Your task to perform on an android device: change notification settings in the gmail app Image 0: 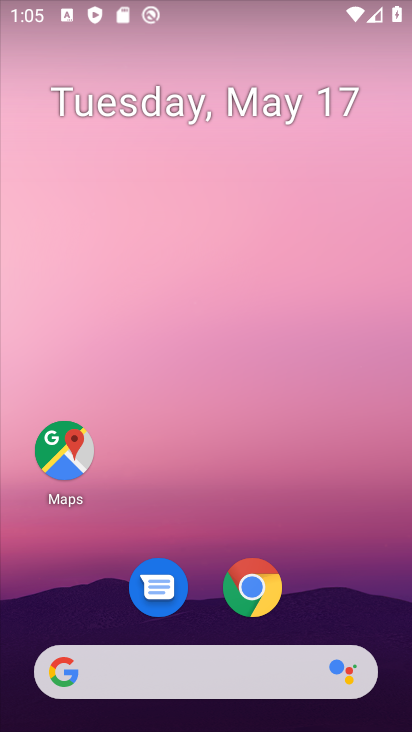
Step 0: drag from (185, 631) to (194, 96)
Your task to perform on an android device: change notification settings in the gmail app Image 1: 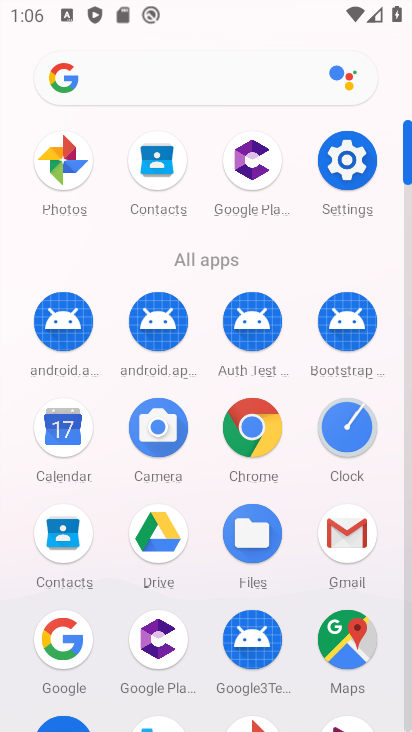
Step 1: click (358, 531)
Your task to perform on an android device: change notification settings in the gmail app Image 2: 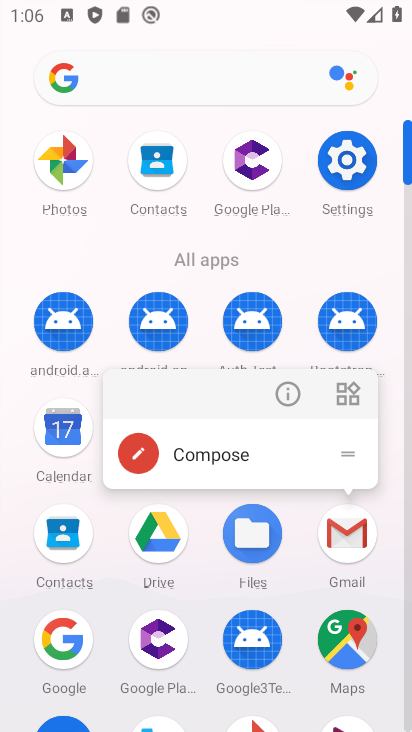
Step 2: click (290, 385)
Your task to perform on an android device: change notification settings in the gmail app Image 3: 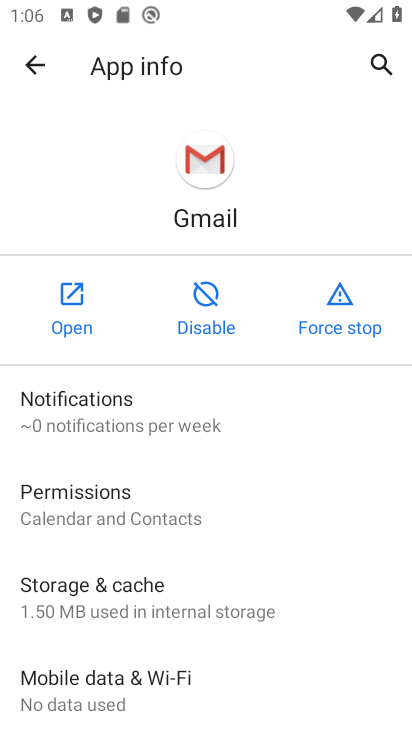
Step 3: click (57, 304)
Your task to perform on an android device: change notification settings in the gmail app Image 4: 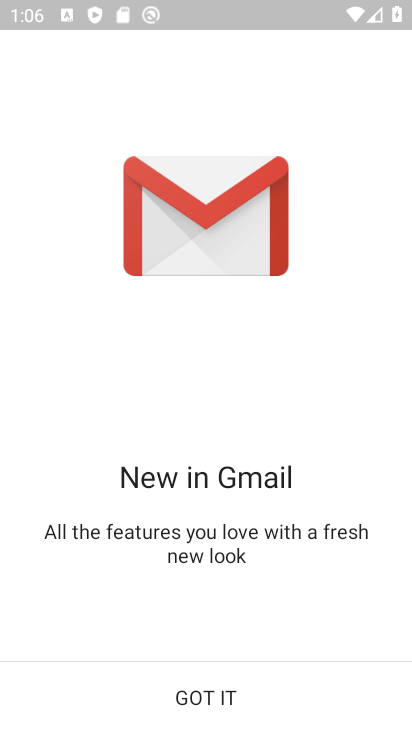
Step 4: click (205, 686)
Your task to perform on an android device: change notification settings in the gmail app Image 5: 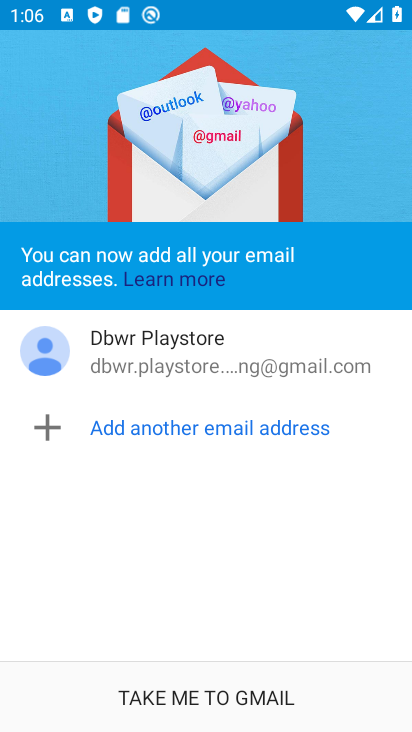
Step 5: click (192, 704)
Your task to perform on an android device: change notification settings in the gmail app Image 6: 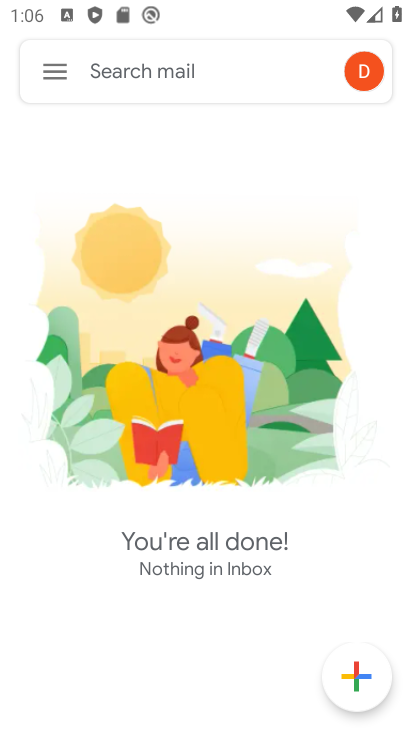
Step 6: click (63, 70)
Your task to perform on an android device: change notification settings in the gmail app Image 7: 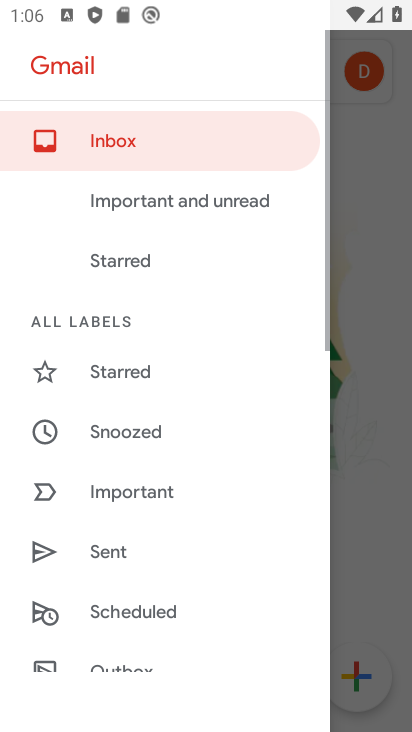
Step 7: drag from (229, 584) to (332, 100)
Your task to perform on an android device: change notification settings in the gmail app Image 8: 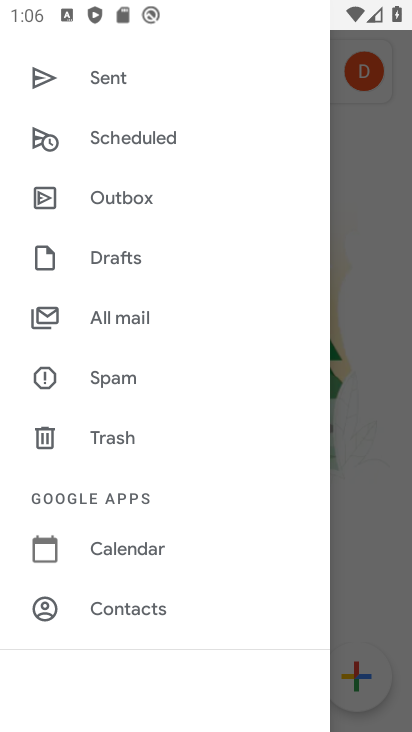
Step 8: drag from (163, 543) to (217, 167)
Your task to perform on an android device: change notification settings in the gmail app Image 9: 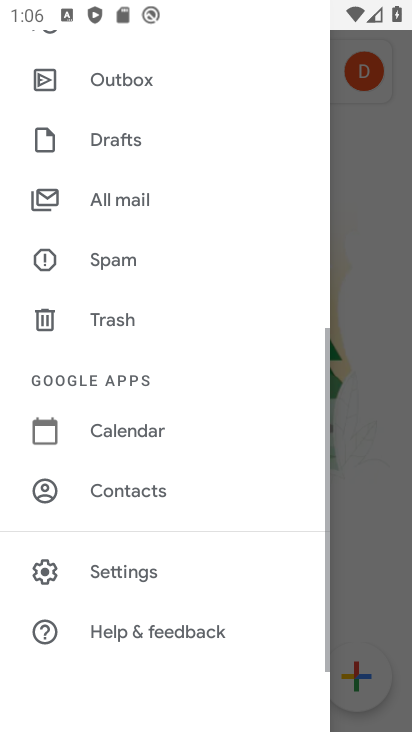
Step 9: click (124, 583)
Your task to perform on an android device: change notification settings in the gmail app Image 10: 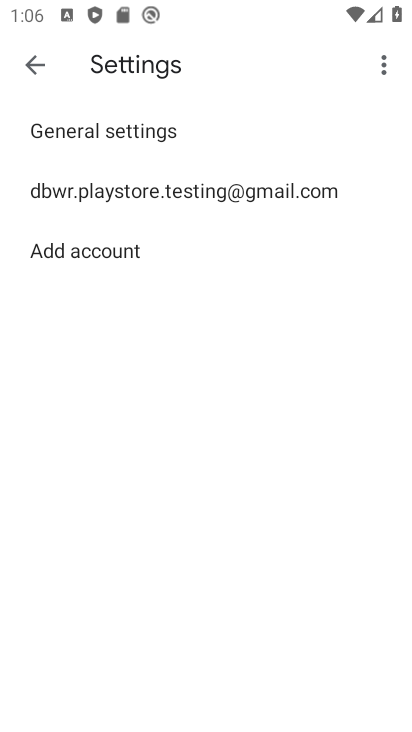
Step 10: click (228, 205)
Your task to perform on an android device: change notification settings in the gmail app Image 11: 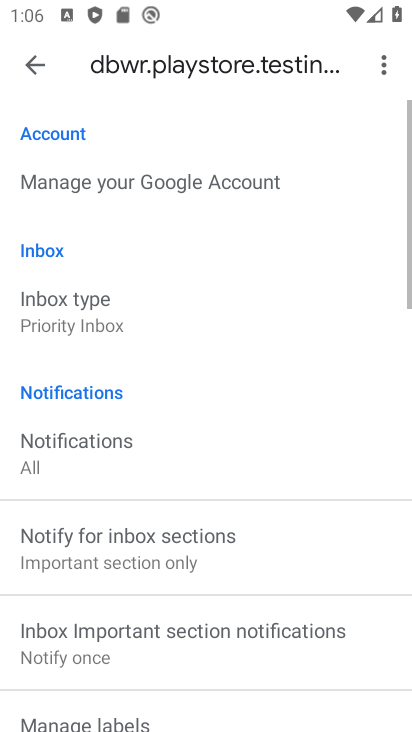
Step 11: drag from (140, 587) to (287, 173)
Your task to perform on an android device: change notification settings in the gmail app Image 12: 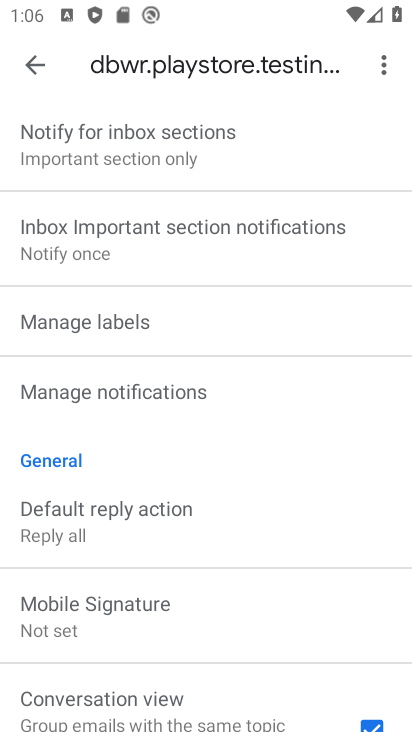
Step 12: click (164, 396)
Your task to perform on an android device: change notification settings in the gmail app Image 13: 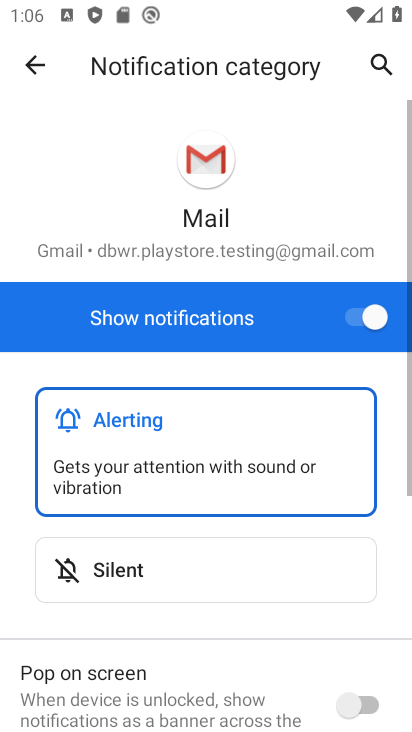
Step 13: drag from (260, 661) to (356, 158)
Your task to perform on an android device: change notification settings in the gmail app Image 14: 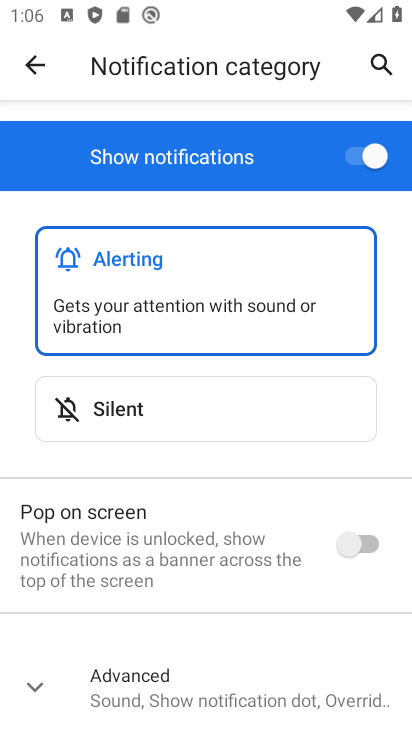
Step 14: drag from (254, 628) to (324, 274)
Your task to perform on an android device: change notification settings in the gmail app Image 15: 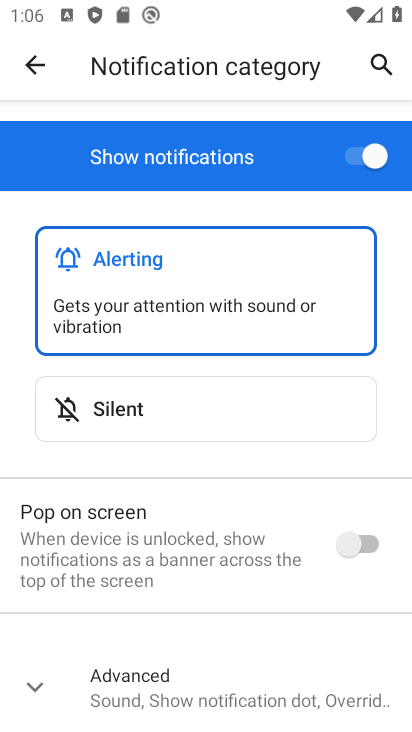
Step 15: click (147, 679)
Your task to perform on an android device: change notification settings in the gmail app Image 16: 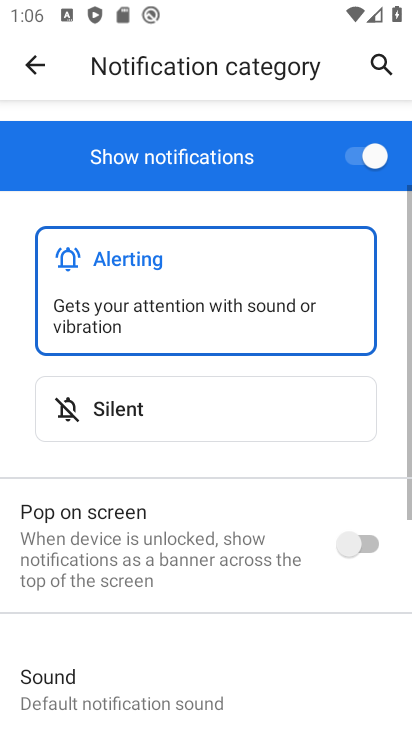
Step 16: drag from (147, 679) to (335, 111)
Your task to perform on an android device: change notification settings in the gmail app Image 17: 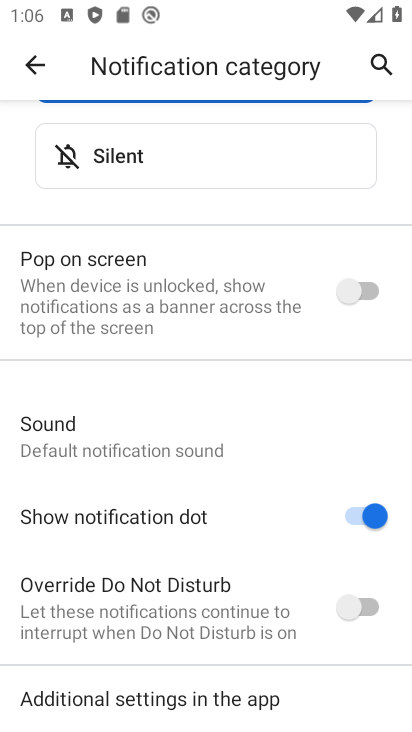
Step 17: drag from (246, 220) to (260, 730)
Your task to perform on an android device: change notification settings in the gmail app Image 18: 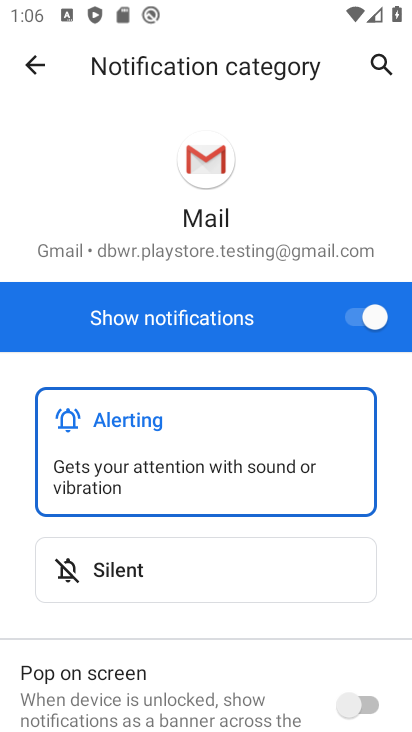
Step 18: click (375, 320)
Your task to perform on an android device: change notification settings in the gmail app Image 19: 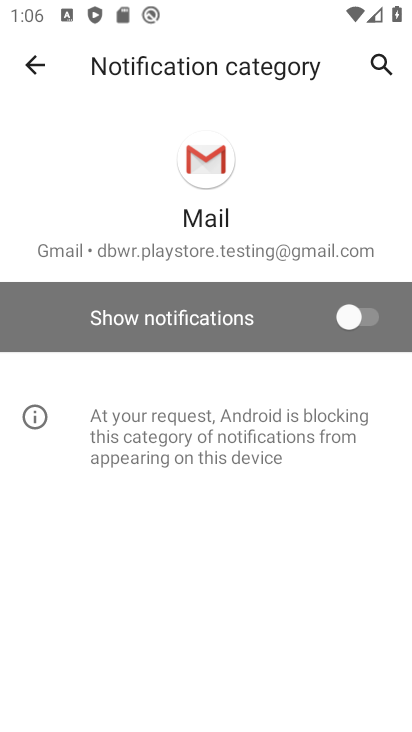
Step 19: task complete